Your task to perform on an android device: Open settings Image 0: 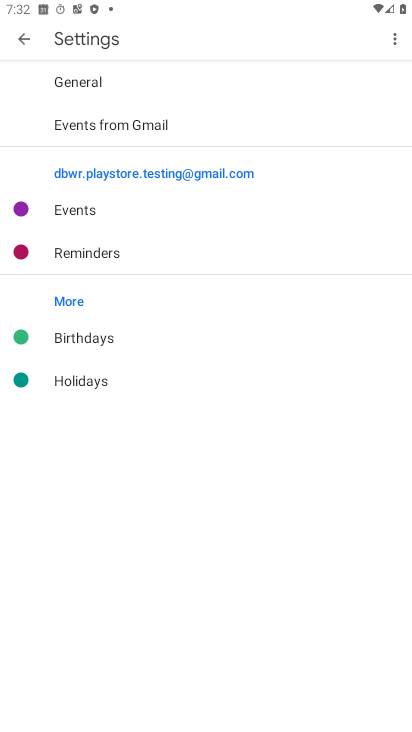
Step 0: press home button
Your task to perform on an android device: Open settings Image 1: 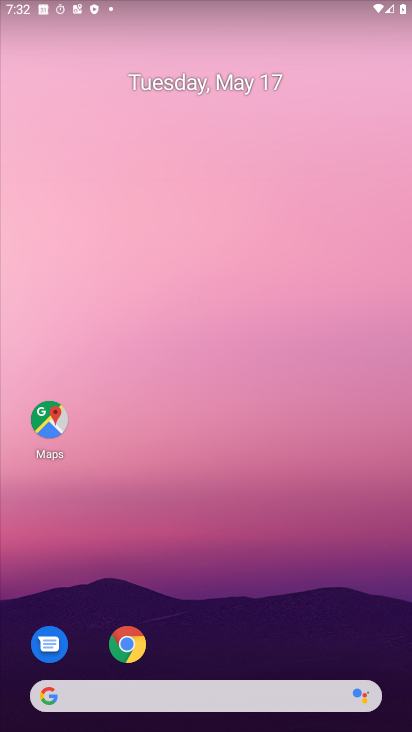
Step 1: drag from (348, 628) to (274, 108)
Your task to perform on an android device: Open settings Image 2: 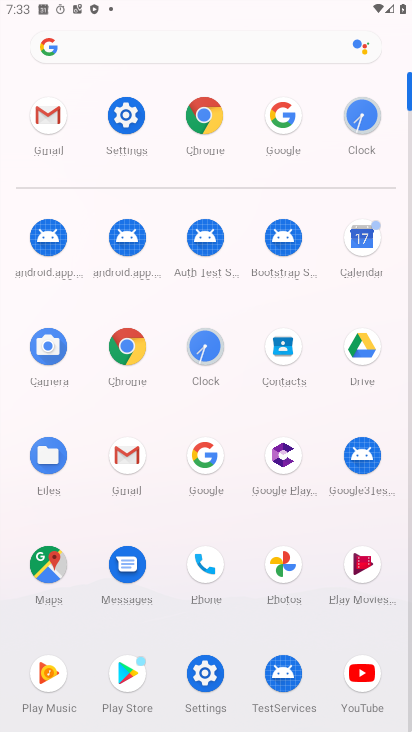
Step 2: click (136, 114)
Your task to perform on an android device: Open settings Image 3: 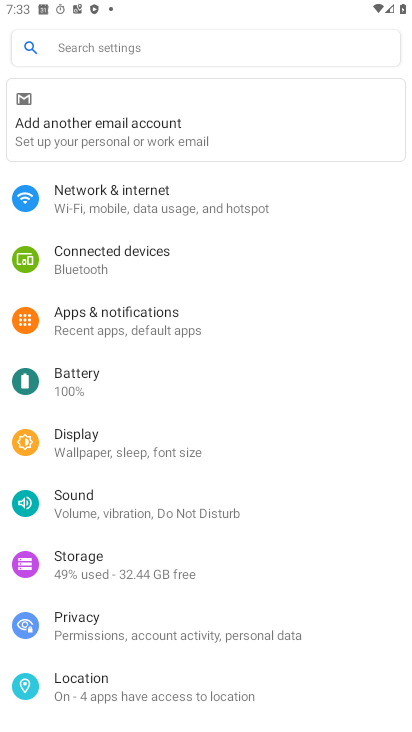
Step 3: task complete